Your task to perform on an android device: set default search engine in the chrome app Image 0: 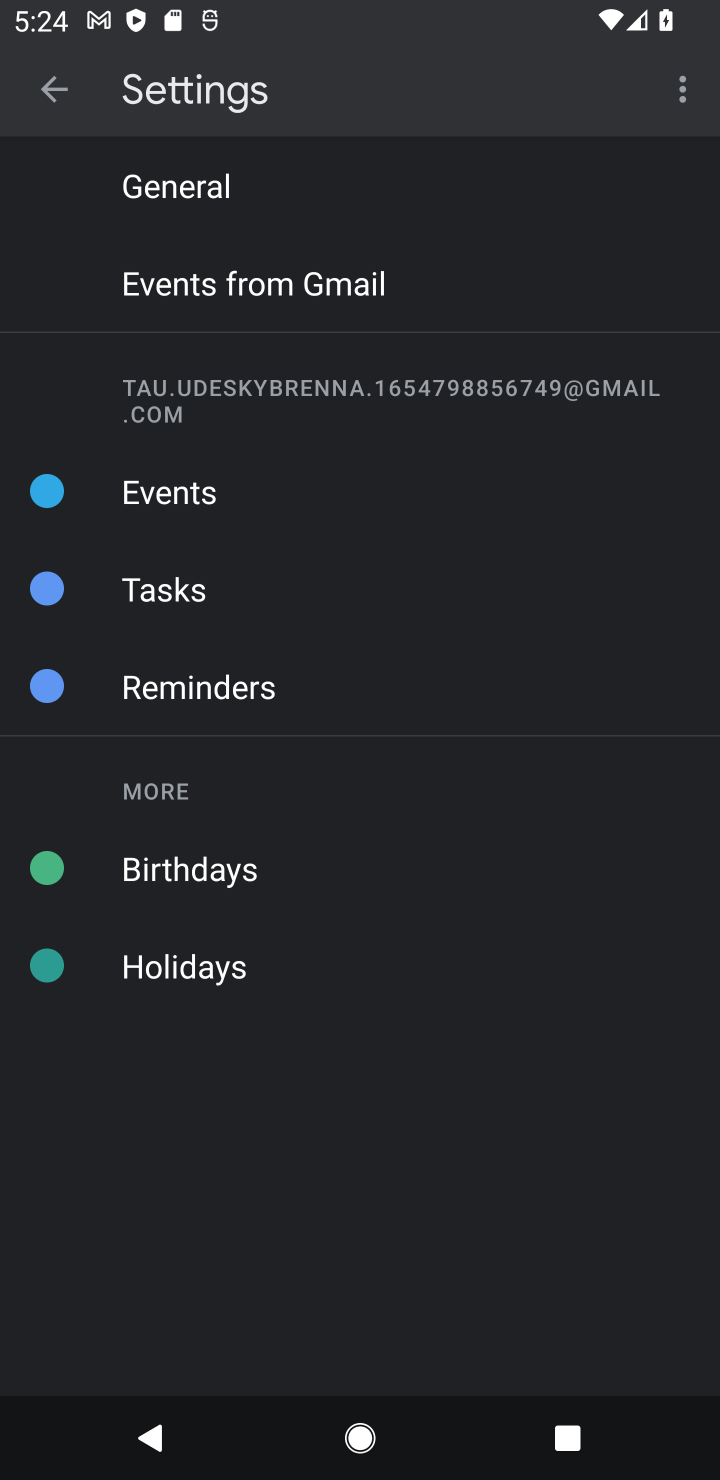
Step 0: press home button
Your task to perform on an android device: set default search engine in the chrome app Image 1: 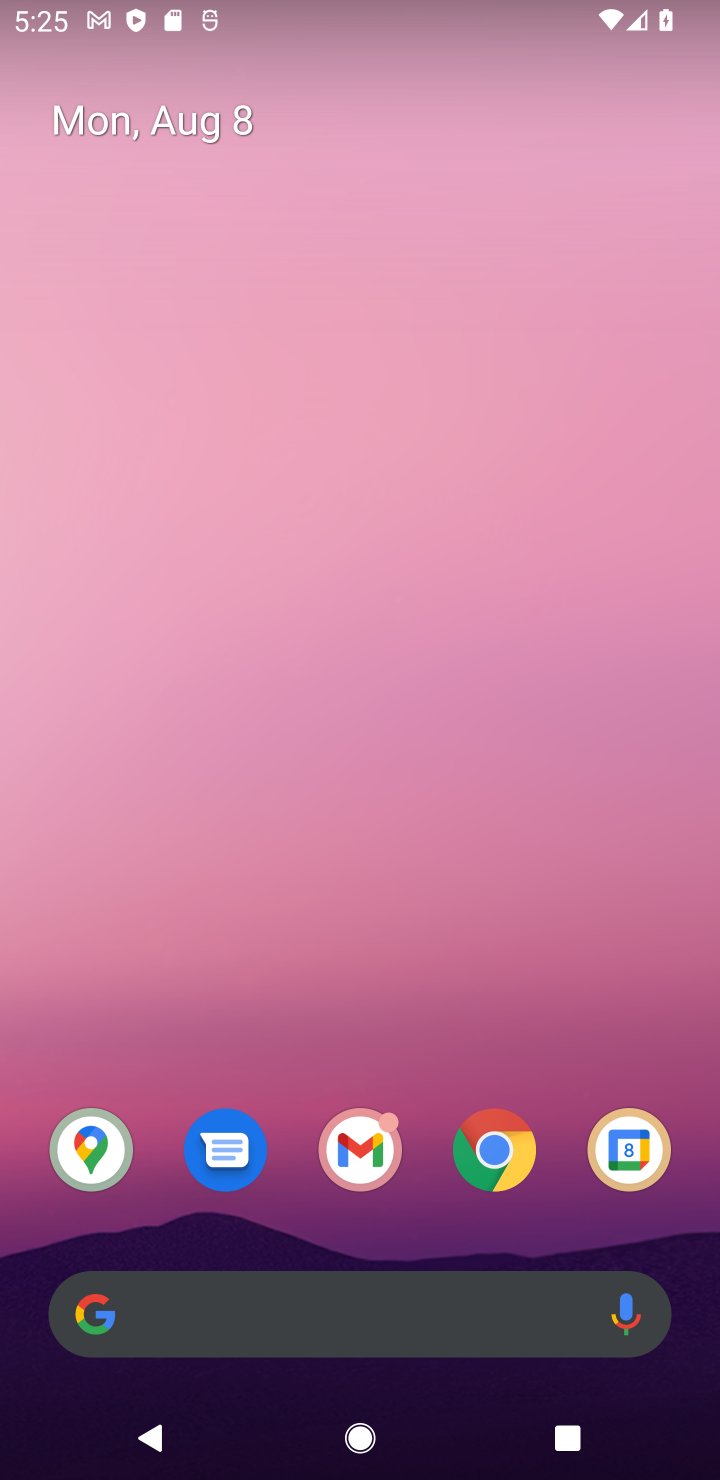
Step 1: click (474, 1183)
Your task to perform on an android device: set default search engine in the chrome app Image 2: 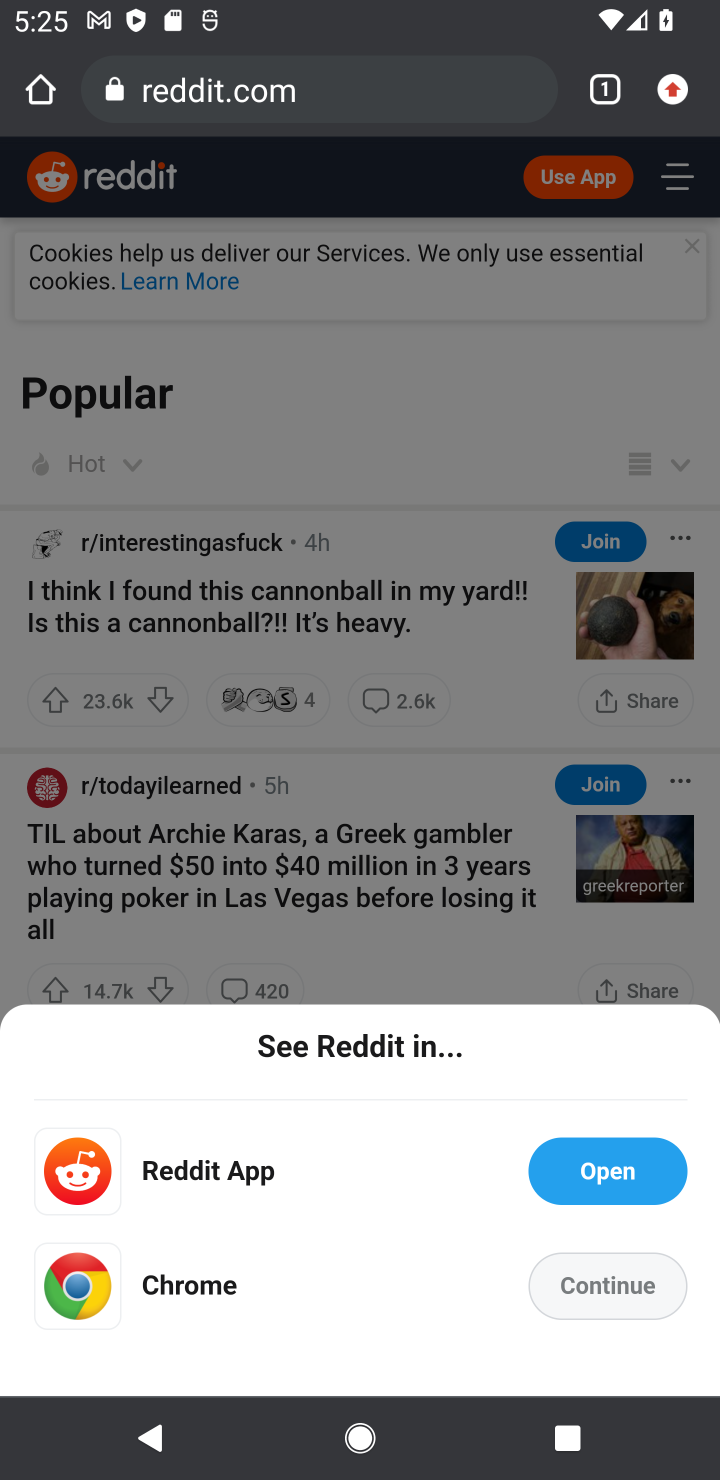
Step 2: click (687, 93)
Your task to perform on an android device: set default search engine in the chrome app Image 3: 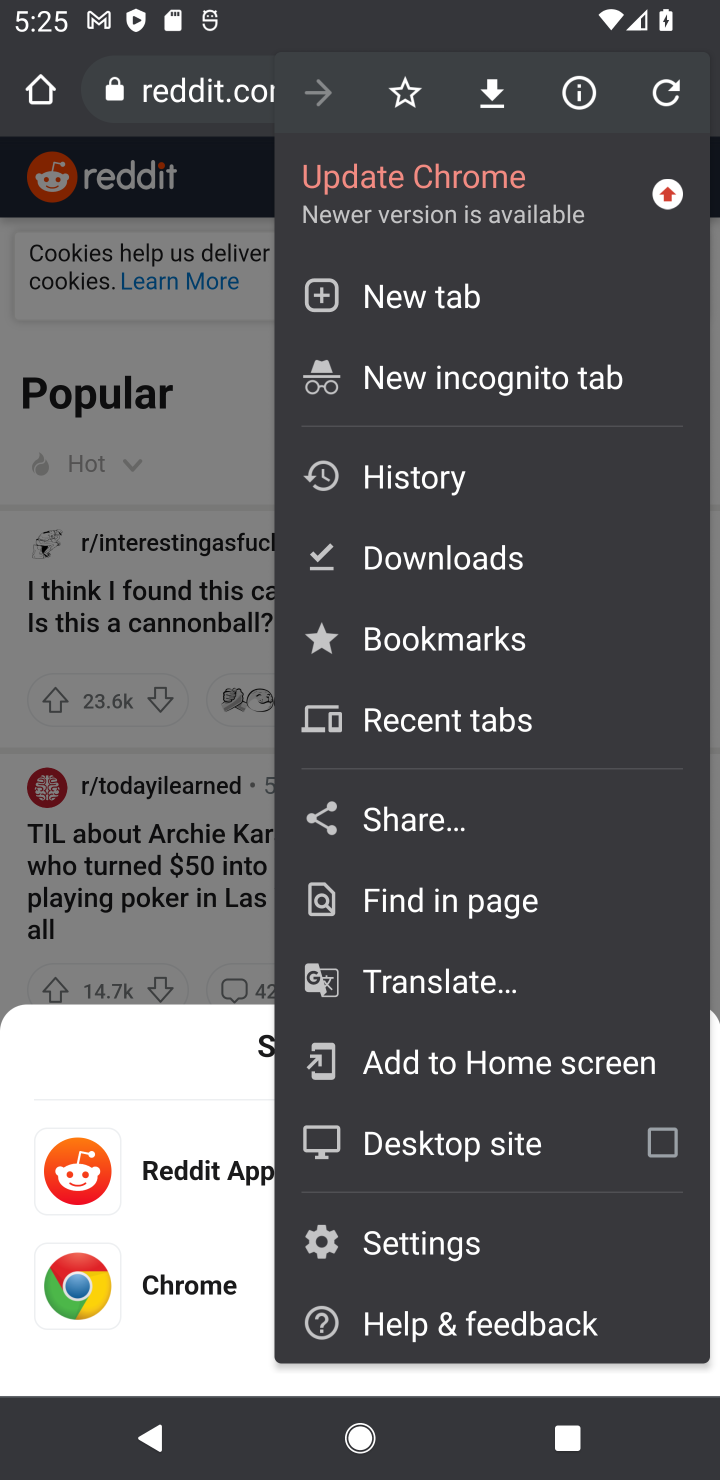
Step 3: click (407, 1253)
Your task to perform on an android device: set default search engine in the chrome app Image 4: 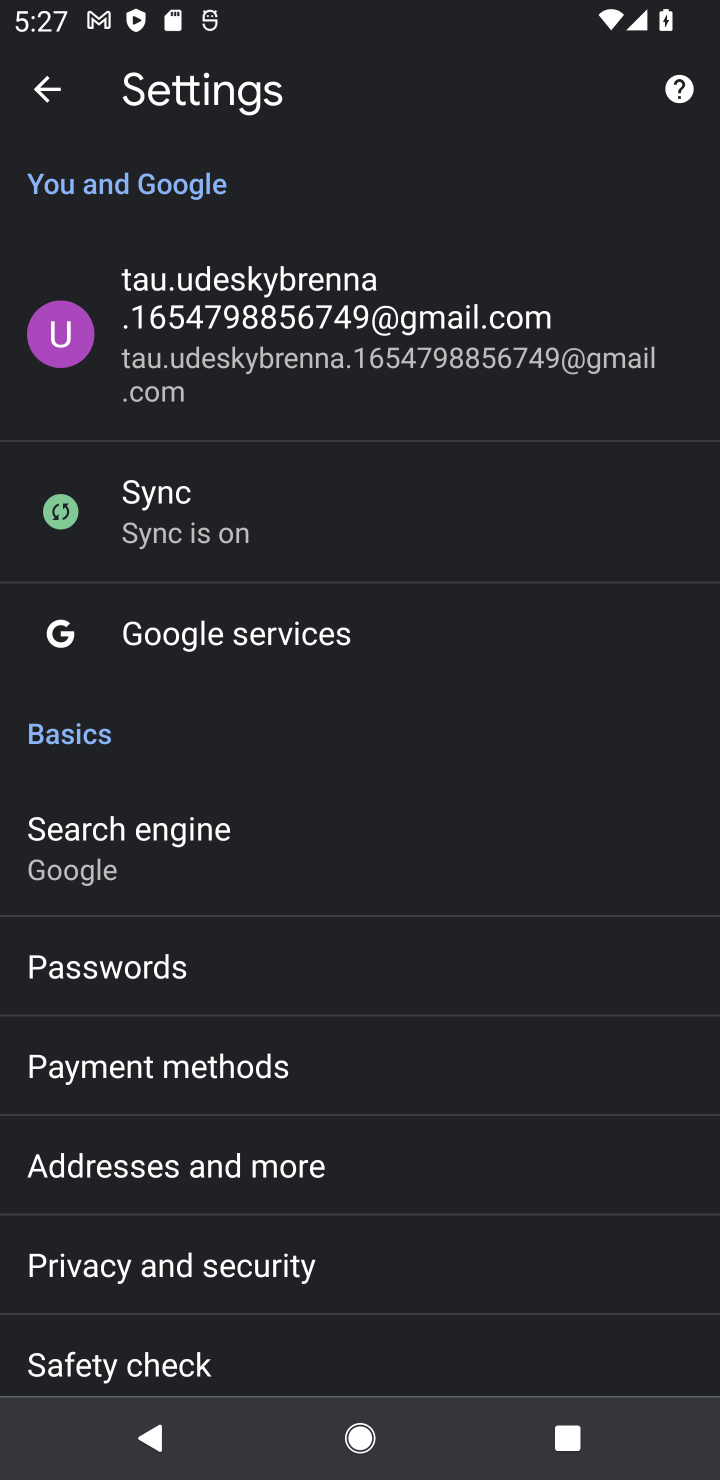
Step 4: task complete